Your task to perform on an android device: set the stopwatch Image 0: 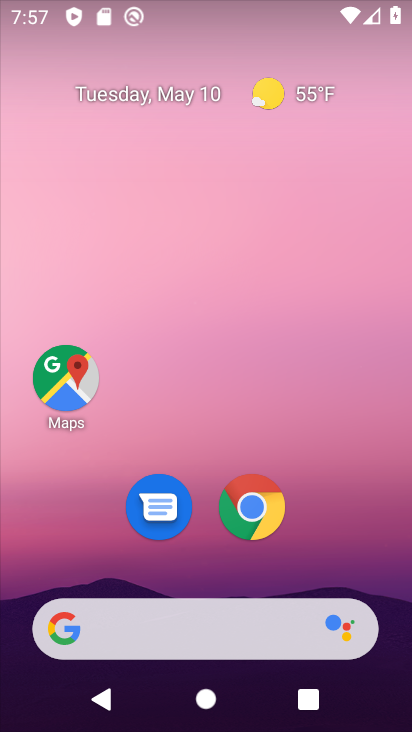
Step 0: drag from (56, 580) to (327, 93)
Your task to perform on an android device: set the stopwatch Image 1: 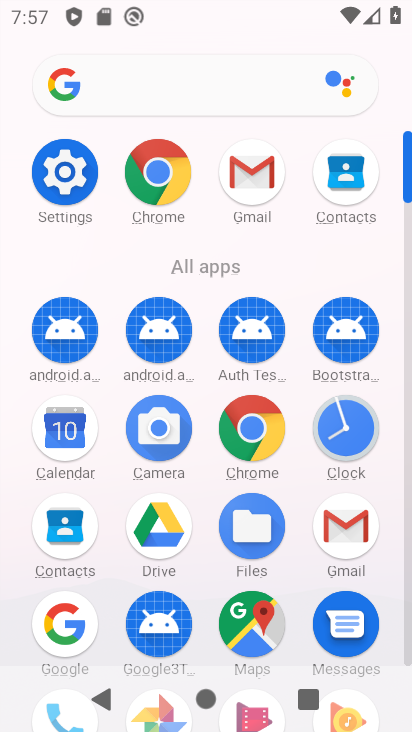
Step 1: click (336, 420)
Your task to perform on an android device: set the stopwatch Image 2: 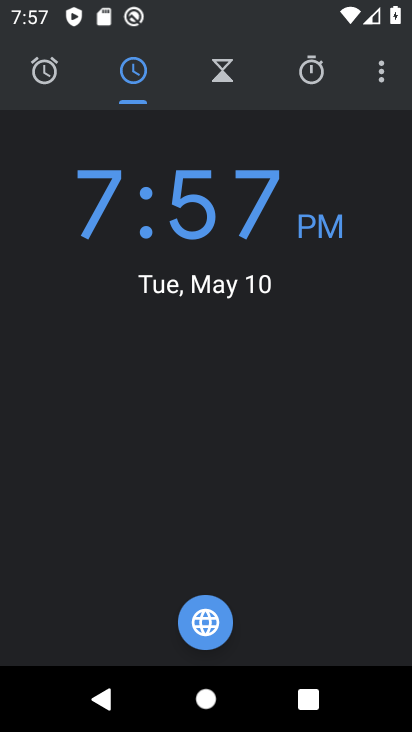
Step 2: click (320, 70)
Your task to perform on an android device: set the stopwatch Image 3: 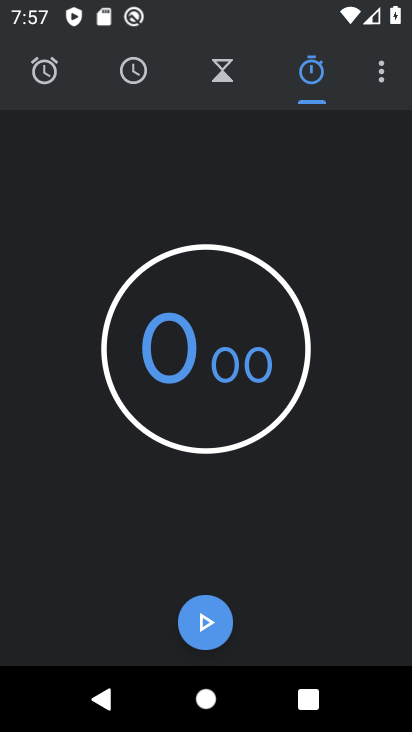
Step 3: click (202, 624)
Your task to perform on an android device: set the stopwatch Image 4: 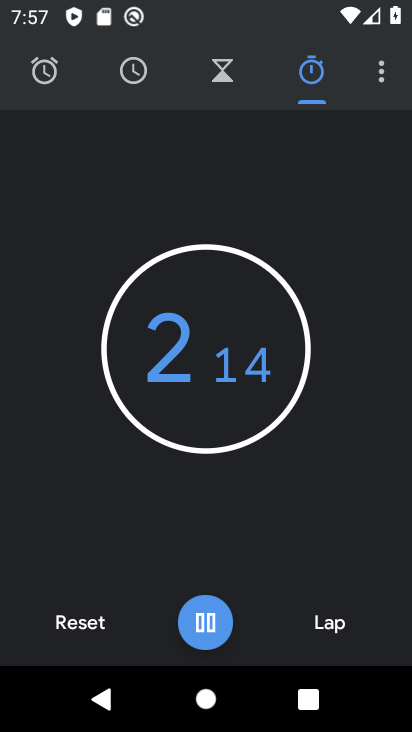
Step 4: task complete